Your task to perform on an android device: Set the phone to "Do not disturb". Image 0: 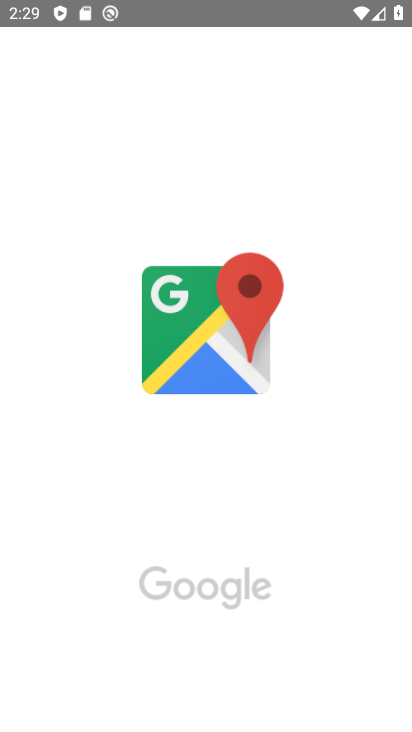
Step 0: press home button
Your task to perform on an android device: Set the phone to "Do not disturb". Image 1: 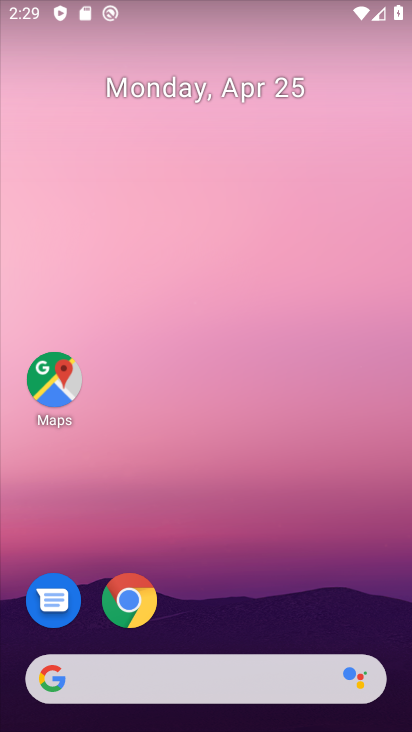
Step 1: press home button
Your task to perform on an android device: Set the phone to "Do not disturb". Image 2: 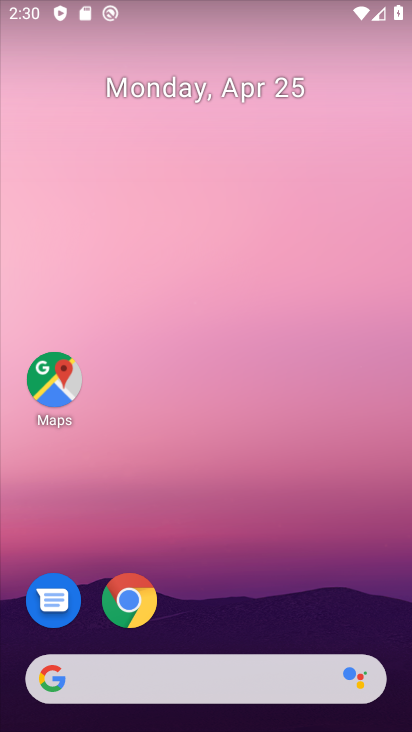
Step 2: drag from (227, 535) to (114, 116)
Your task to perform on an android device: Set the phone to "Do not disturb". Image 3: 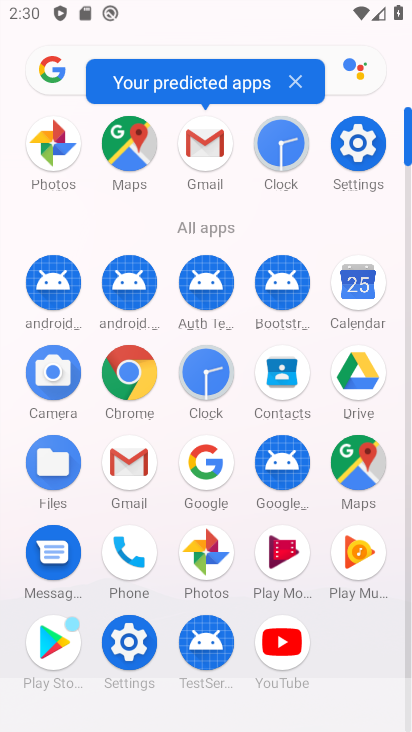
Step 3: click (350, 143)
Your task to perform on an android device: Set the phone to "Do not disturb". Image 4: 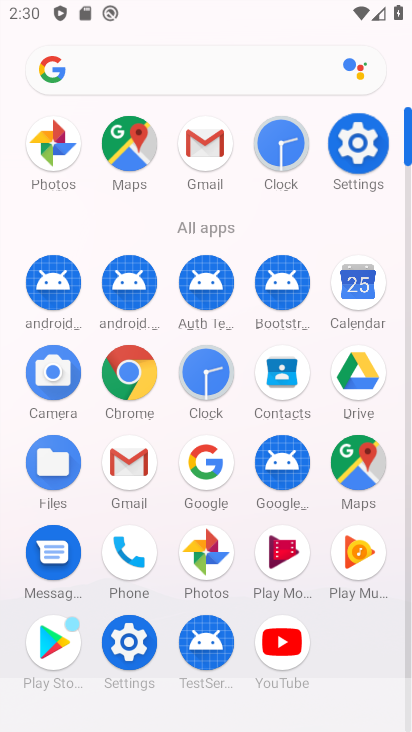
Step 4: click (352, 146)
Your task to perform on an android device: Set the phone to "Do not disturb". Image 5: 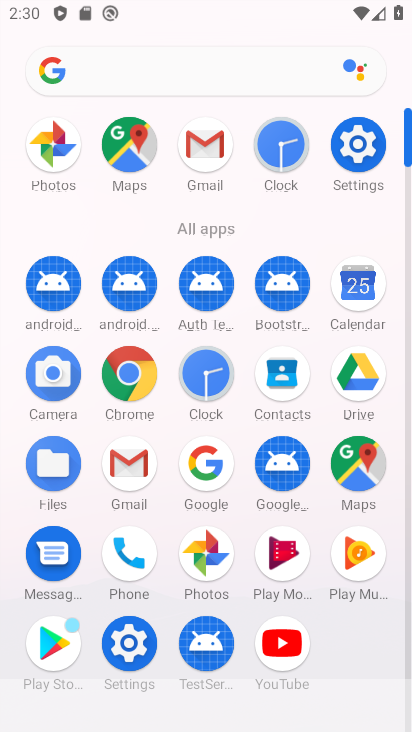
Step 5: click (352, 153)
Your task to perform on an android device: Set the phone to "Do not disturb". Image 6: 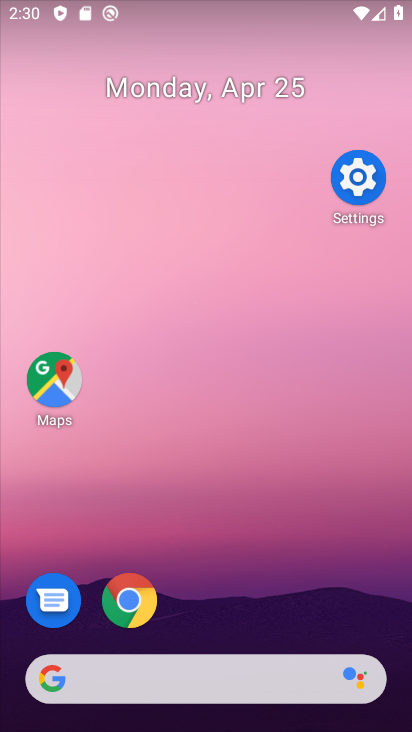
Step 6: drag from (242, 656) to (140, 71)
Your task to perform on an android device: Set the phone to "Do not disturb". Image 7: 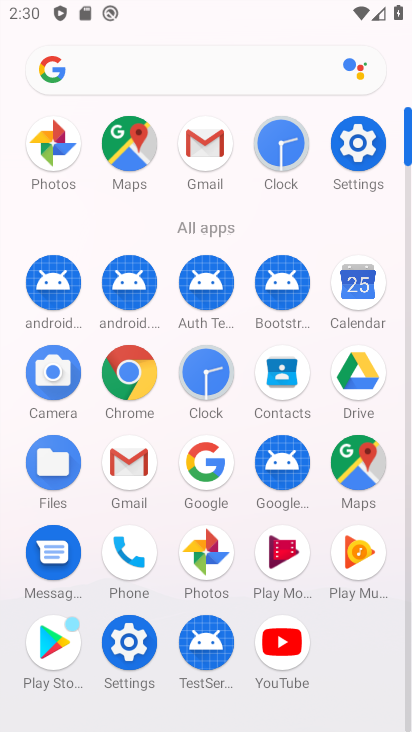
Step 7: click (358, 142)
Your task to perform on an android device: Set the phone to "Do not disturb". Image 8: 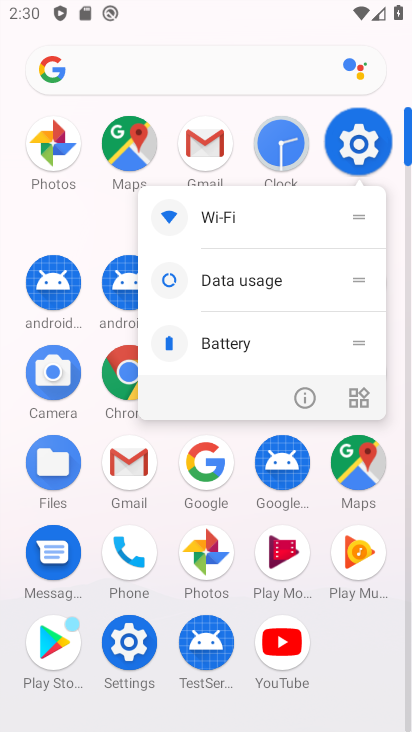
Step 8: click (358, 138)
Your task to perform on an android device: Set the phone to "Do not disturb". Image 9: 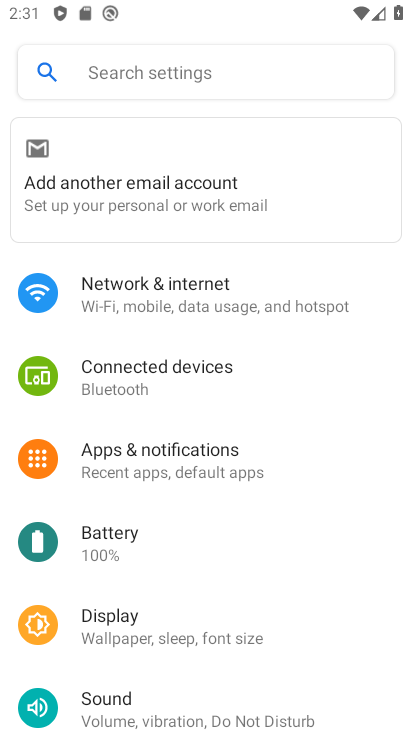
Step 9: drag from (196, 655) to (54, 203)
Your task to perform on an android device: Set the phone to "Do not disturb". Image 10: 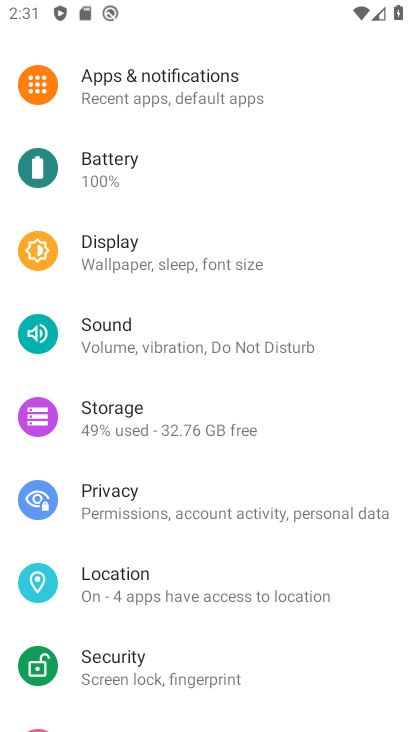
Step 10: click (132, 339)
Your task to perform on an android device: Set the phone to "Do not disturb". Image 11: 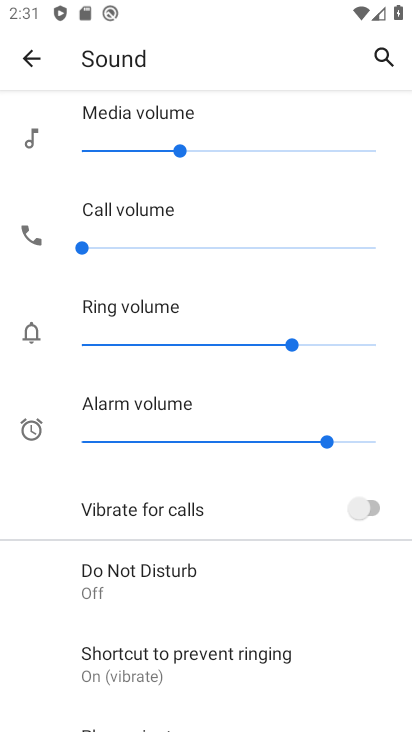
Step 11: click (73, 161)
Your task to perform on an android device: Set the phone to "Do not disturb". Image 12: 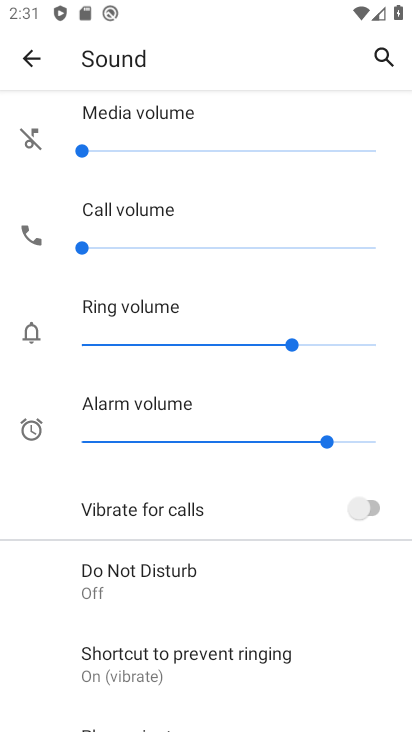
Step 12: click (109, 577)
Your task to perform on an android device: Set the phone to "Do not disturb". Image 13: 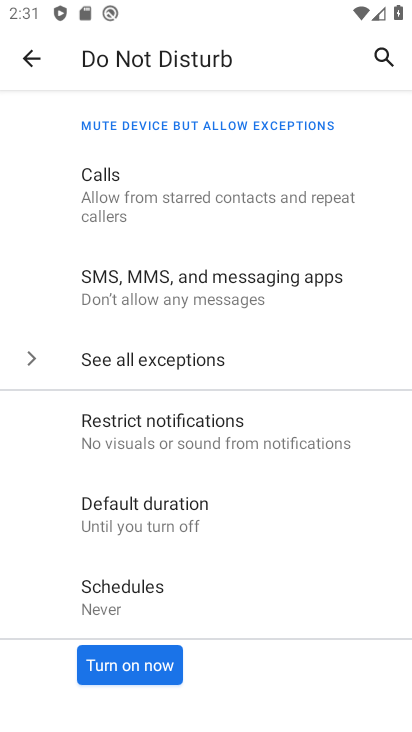
Step 13: click (113, 662)
Your task to perform on an android device: Set the phone to "Do not disturb". Image 14: 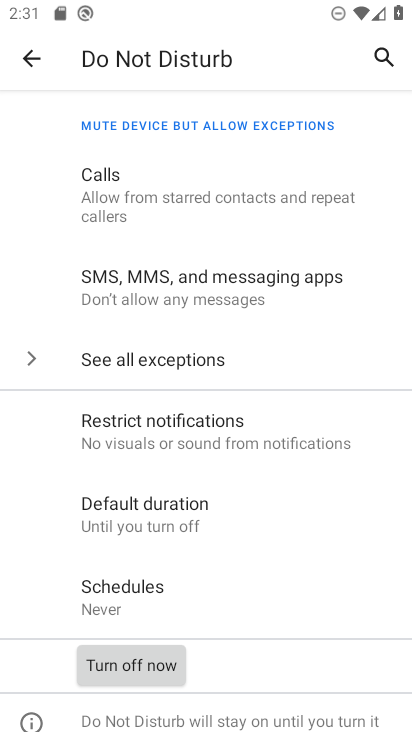
Step 14: task complete